Your task to perform on an android device: change the upload size in google photos Image 0: 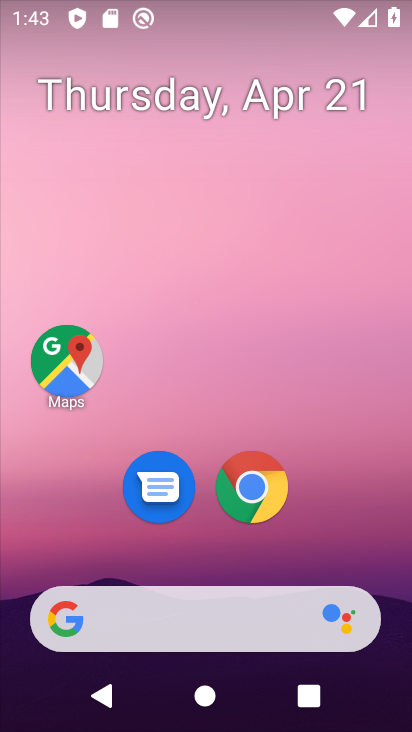
Step 0: drag from (243, 488) to (296, 296)
Your task to perform on an android device: change the upload size in google photos Image 1: 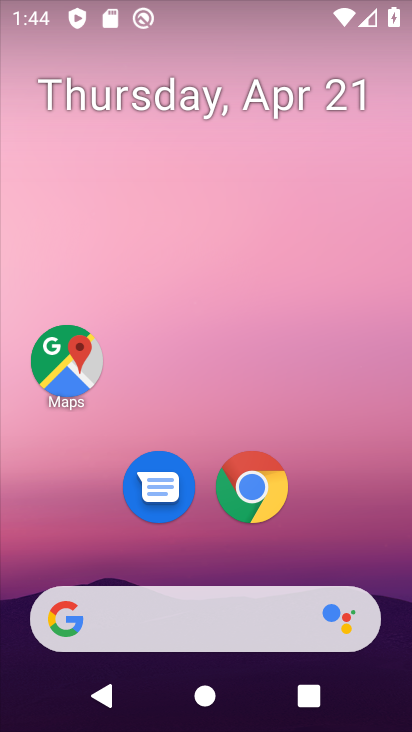
Step 1: drag from (216, 556) to (215, 205)
Your task to perform on an android device: change the upload size in google photos Image 2: 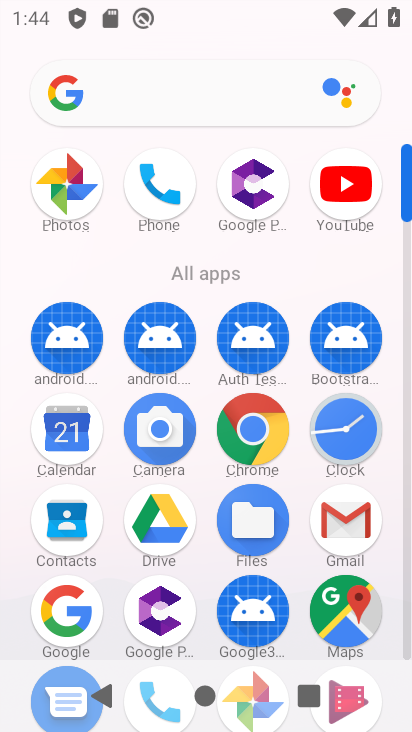
Step 2: drag from (199, 656) to (199, 281)
Your task to perform on an android device: change the upload size in google photos Image 3: 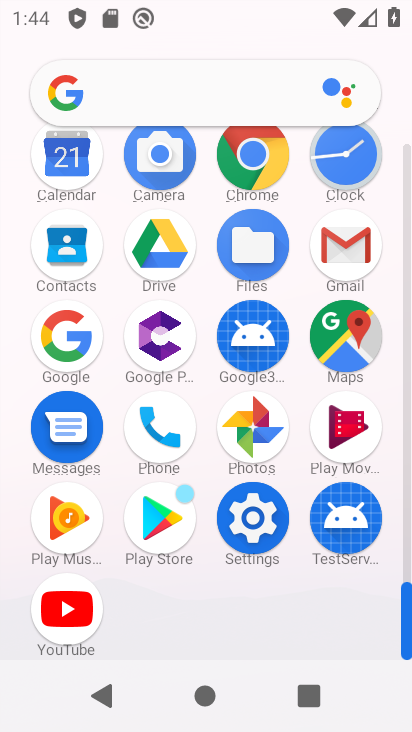
Step 3: click (260, 445)
Your task to perform on an android device: change the upload size in google photos Image 4: 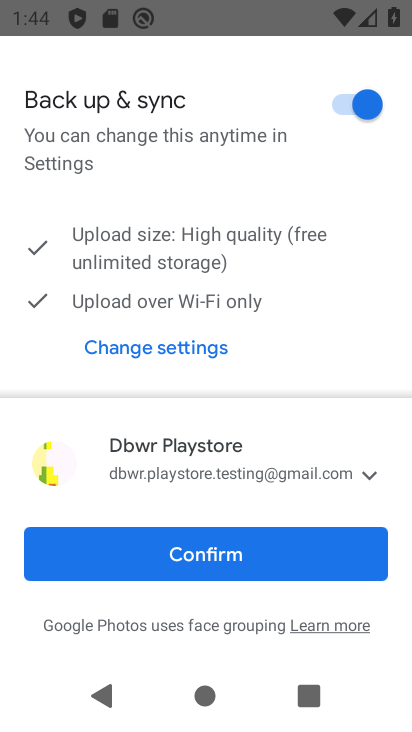
Step 4: click (266, 553)
Your task to perform on an android device: change the upload size in google photos Image 5: 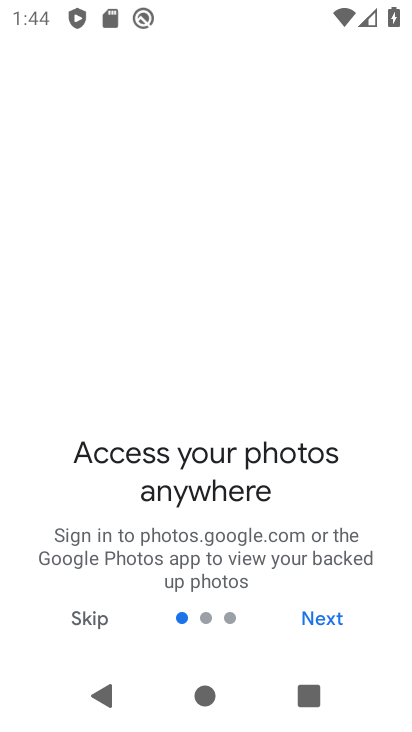
Step 5: click (75, 624)
Your task to perform on an android device: change the upload size in google photos Image 6: 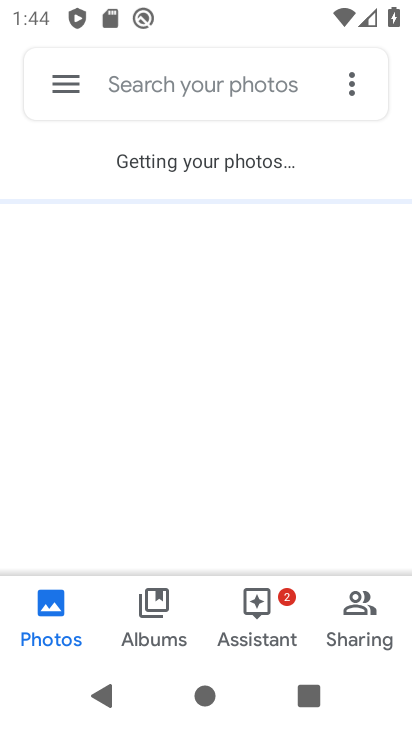
Step 6: click (56, 85)
Your task to perform on an android device: change the upload size in google photos Image 7: 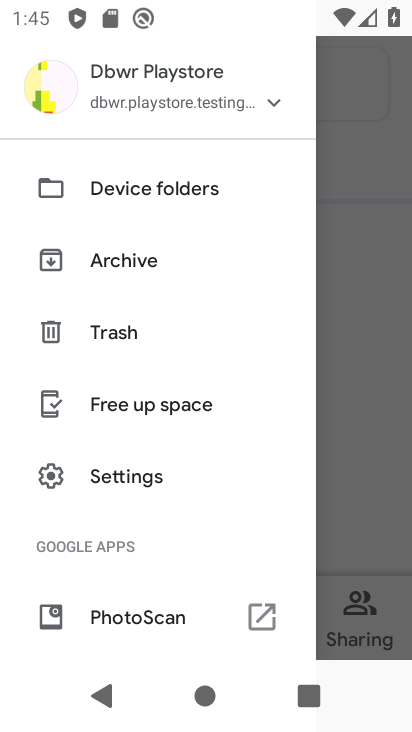
Step 7: drag from (190, 587) to (188, 371)
Your task to perform on an android device: change the upload size in google photos Image 8: 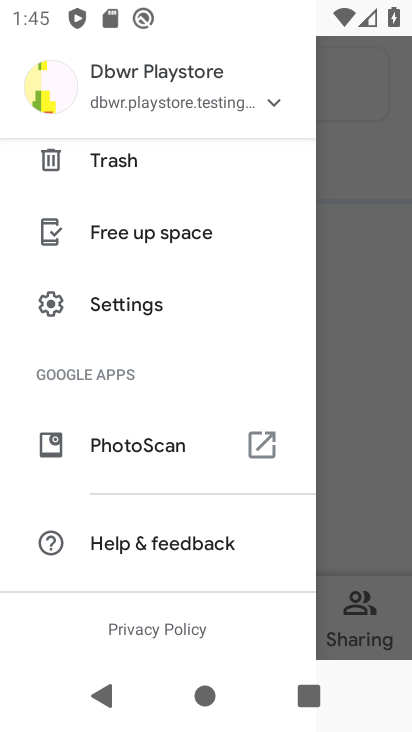
Step 8: click (166, 303)
Your task to perform on an android device: change the upload size in google photos Image 9: 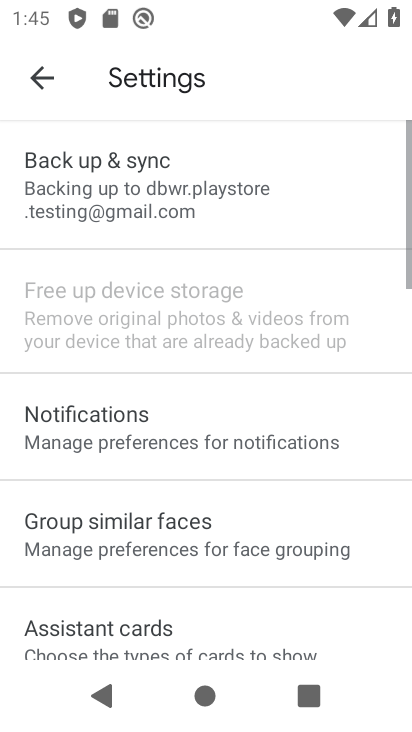
Step 9: click (217, 205)
Your task to perform on an android device: change the upload size in google photos Image 10: 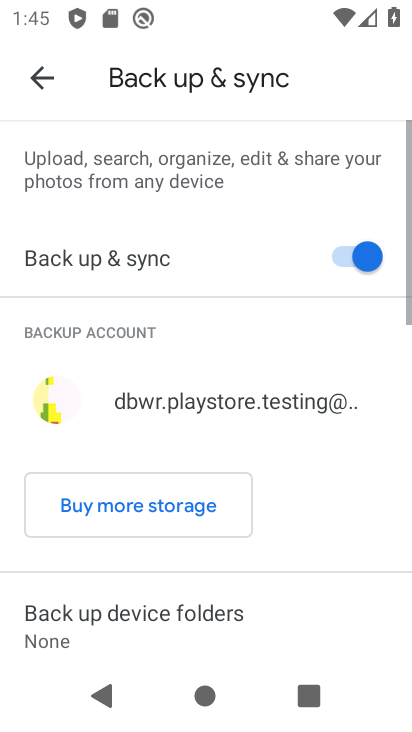
Step 10: drag from (204, 416) to (211, 234)
Your task to perform on an android device: change the upload size in google photos Image 11: 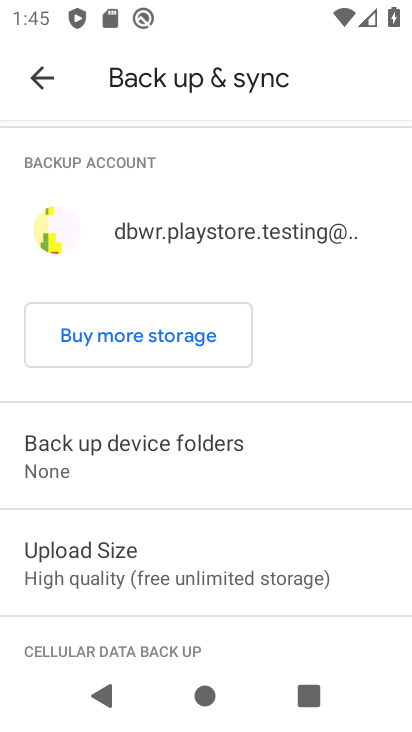
Step 11: drag from (243, 495) to (258, 285)
Your task to perform on an android device: change the upload size in google photos Image 12: 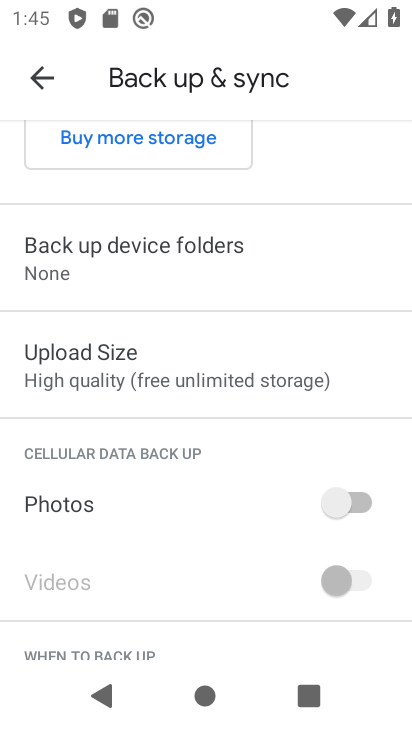
Step 12: click (99, 335)
Your task to perform on an android device: change the upload size in google photos Image 13: 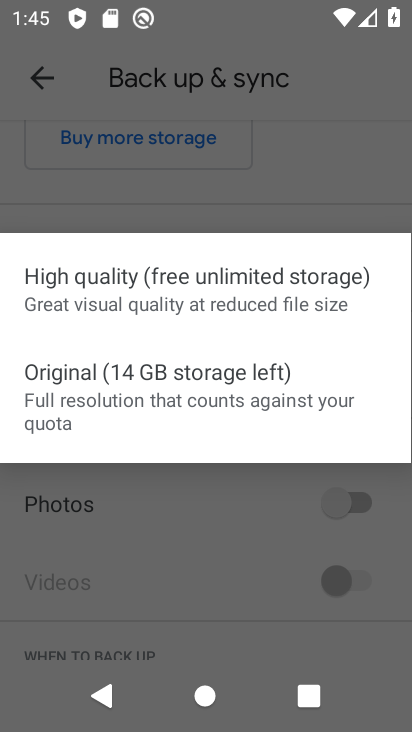
Step 13: click (248, 290)
Your task to perform on an android device: change the upload size in google photos Image 14: 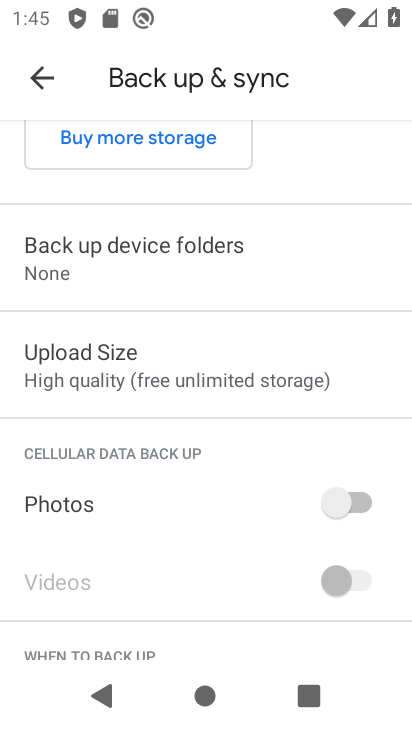
Step 14: task complete